Your task to perform on an android device: Go to network settings Image 0: 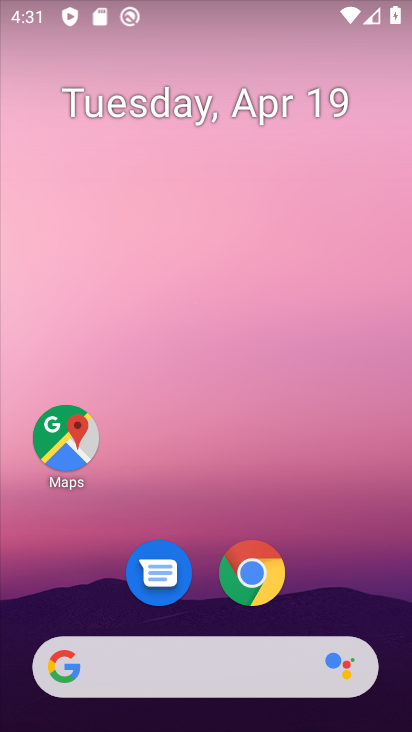
Step 0: drag from (357, 552) to (353, 113)
Your task to perform on an android device: Go to network settings Image 1: 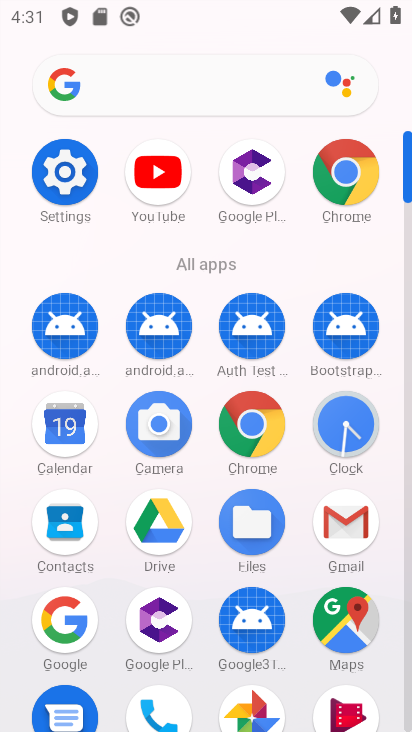
Step 1: click (66, 178)
Your task to perform on an android device: Go to network settings Image 2: 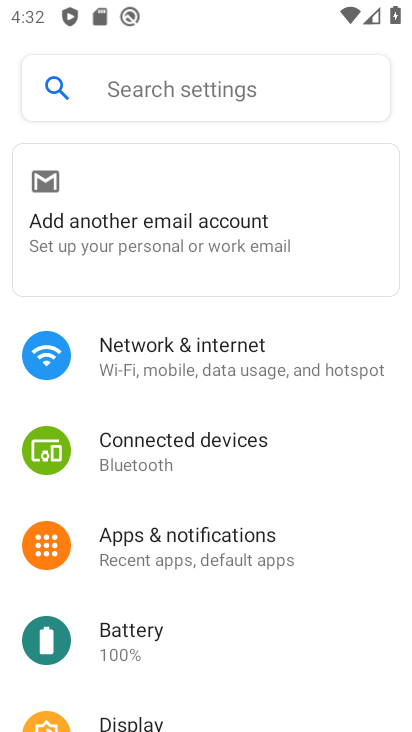
Step 2: click (197, 363)
Your task to perform on an android device: Go to network settings Image 3: 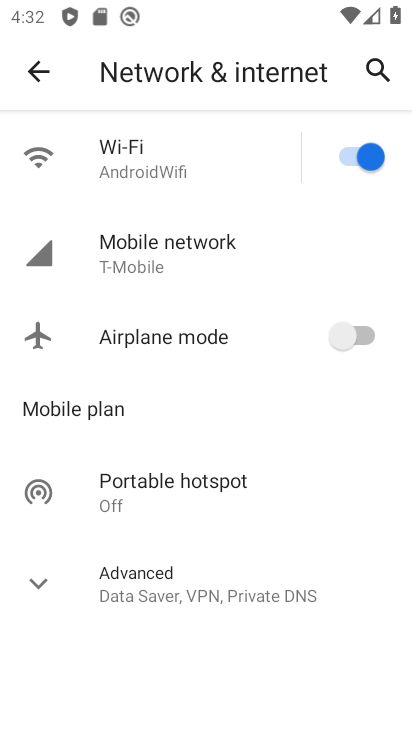
Step 3: click (150, 278)
Your task to perform on an android device: Go to network settings Image 4: 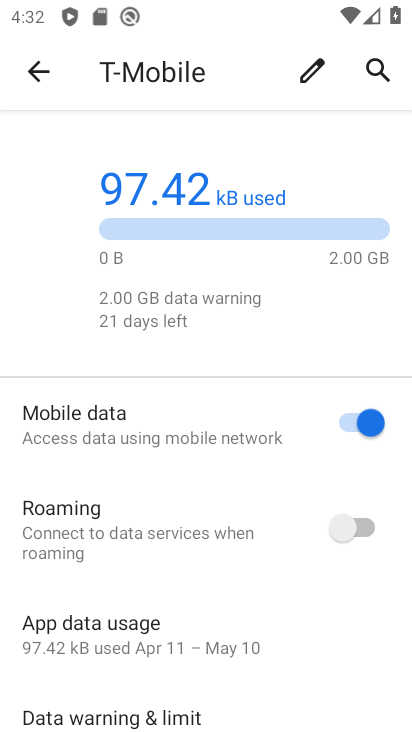
Step 4: click (201, 304)
Your task to perform on an android device: Go to network settings Image 5: 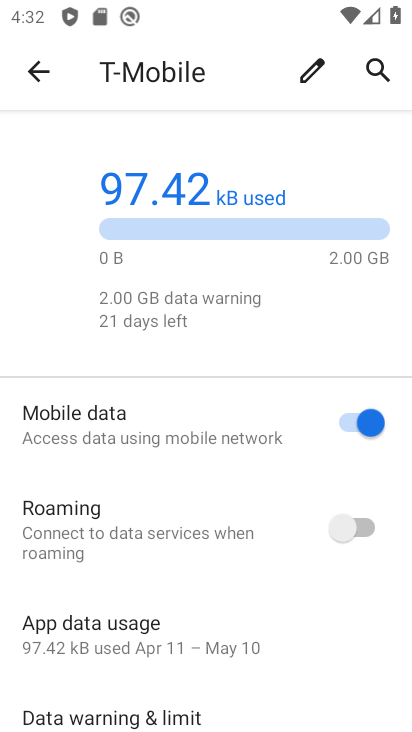
Step 5: task complete